Your task to perform on an android device: snooze an email in the gmail app Image 0: 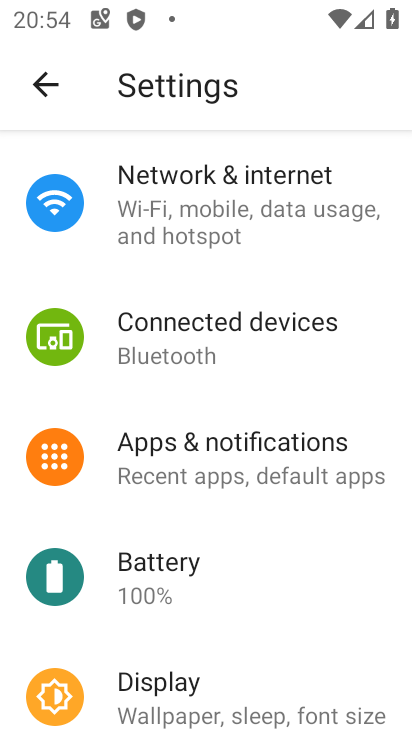
Step 0: press home button
Your task to perform on an android device: snooze an email in the gmail app Image 1: 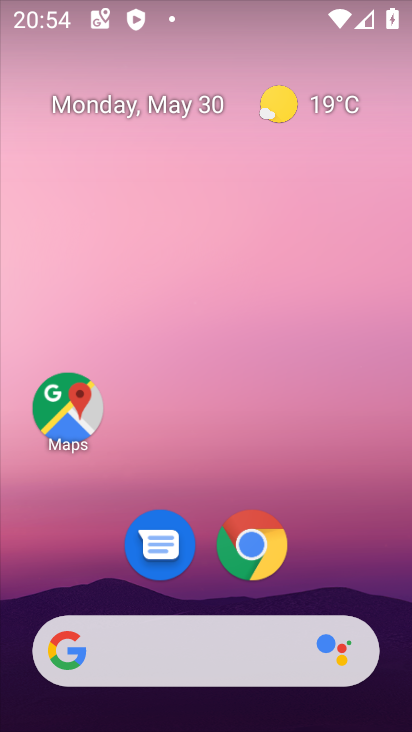
Step 1: drag from (325, 531) to (318, 262)
Your task to perform on an android device: snooze an email in the gmail app Image 2: 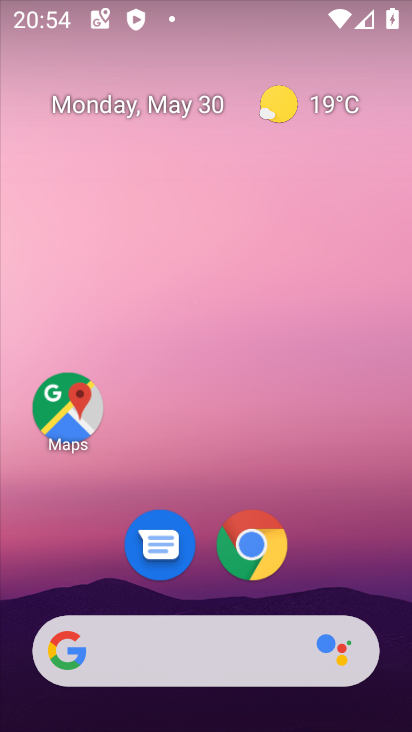
Step 2: drag from (317, 550) to (297, 229)
Your task to perform on an android device: snooze an email in the gmail app Image 3: 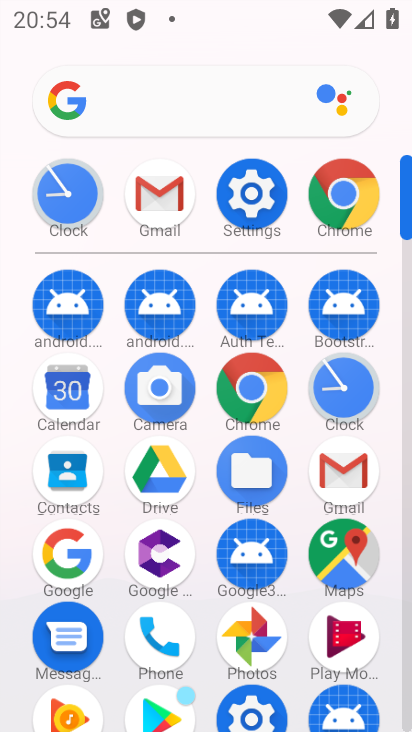
Step 3: click (166, 198)
Your task to perform on an android device: snooze an email in the gmail app Image 4: 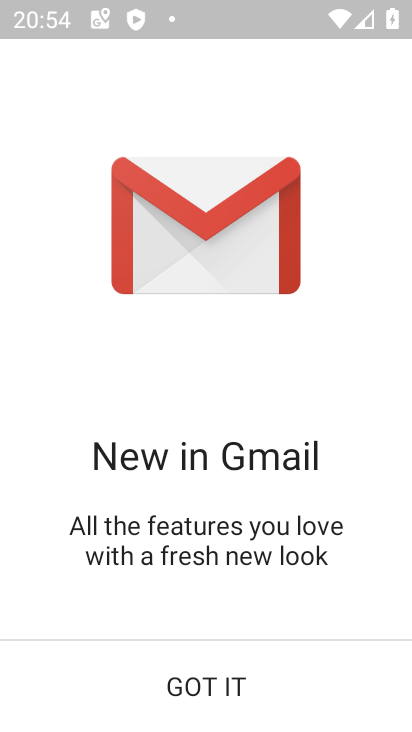
Step 4: click (194, 673)
Your task to perform on an android device: snooze an email in the gmail app Image 5: 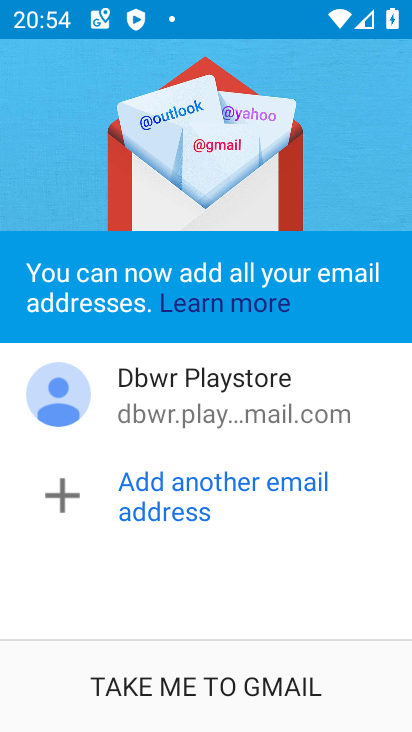
Step 5: click (205, 683)
Your task to perform on an android device: snooze an email in the gmail app Image 6: 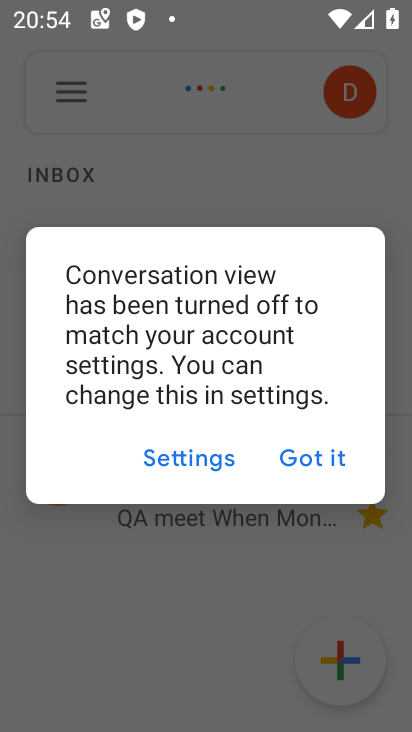
Step 6: click (307, 451)
Your task to perform on an android device: snooze an email in the gmail app Image 7: 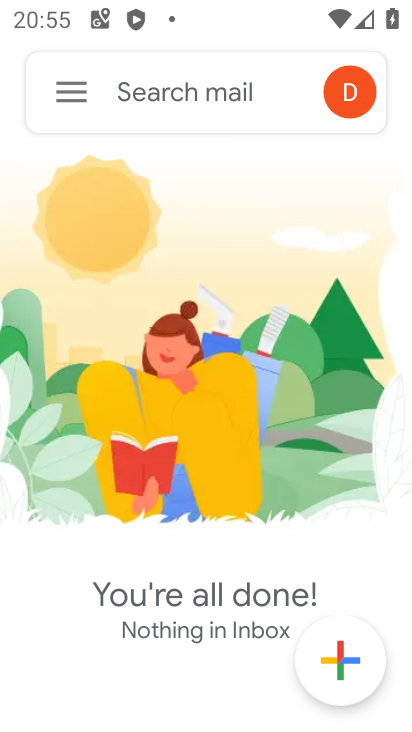
Step 7: click (73, 91)
Your task to perform on an android device: snooze an email in the gmail app Image 8: 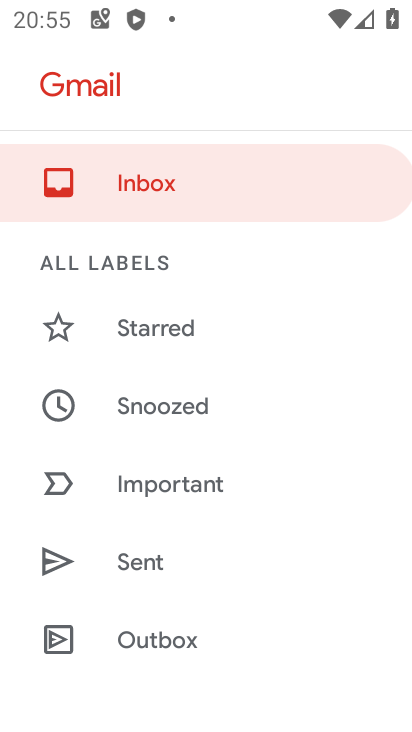
Step 8: drag from (254, 608) to (267, 318)
Your task to perform on an android device: snooze an email in the gmail app Image 9: 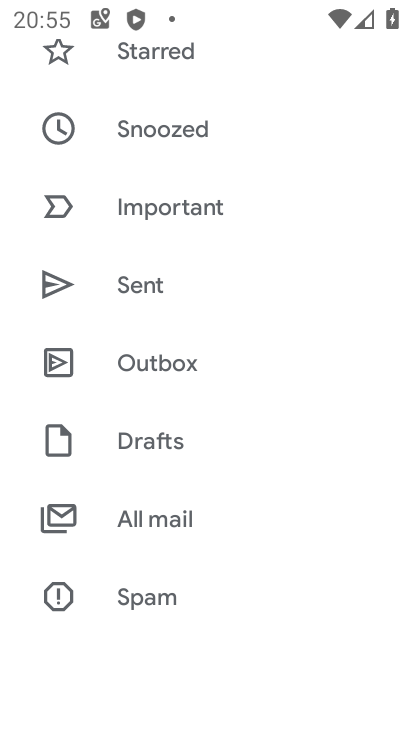
Step 9: click (168, 525)
Your task to perform on an android device: snooze an email in the gmail app Image 10: 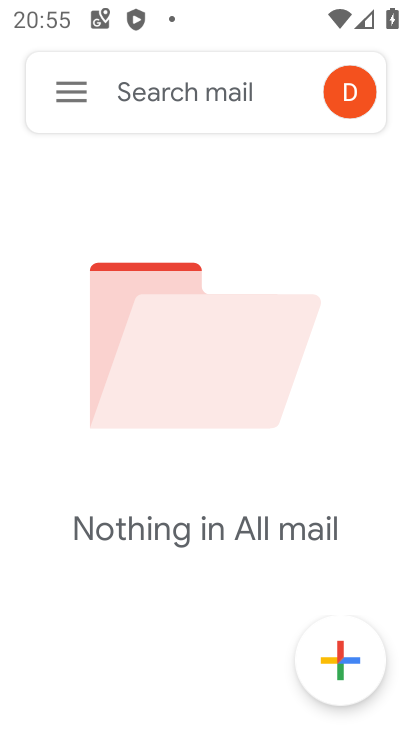
Step 10: task complete